Your task to perform on an android device: change your default location settings in chrome Image 0: 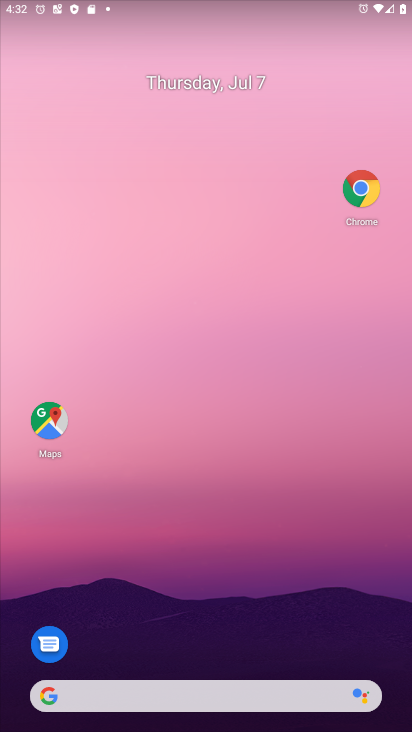
Step 0: drag from (238, 562) to (407, 38)
Your task to perform on an android device: change your default location settings in chrome Image 1: 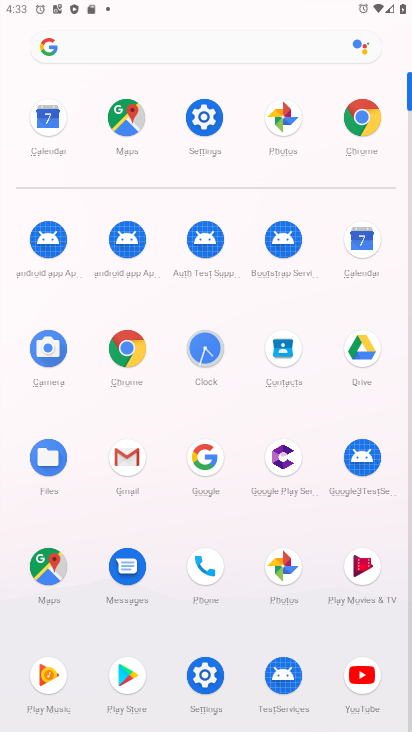
Step 1: click (363, 134)
Your task to perform on an android device: change your default location settings in chrome Image 2: 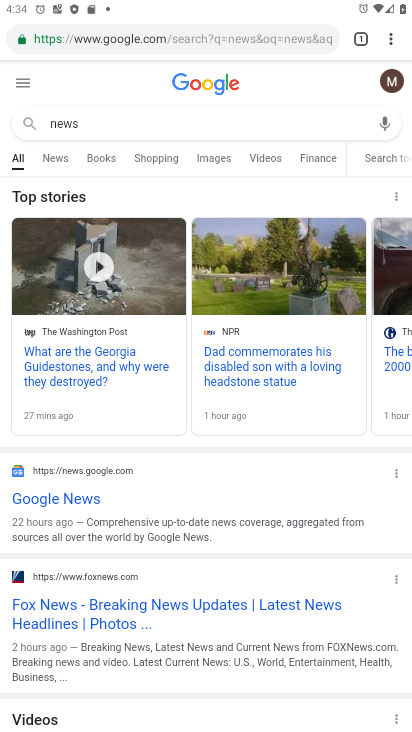
Step 2: press back button
Your task to perform on an android device: change your default location settings in chrome Image 3: 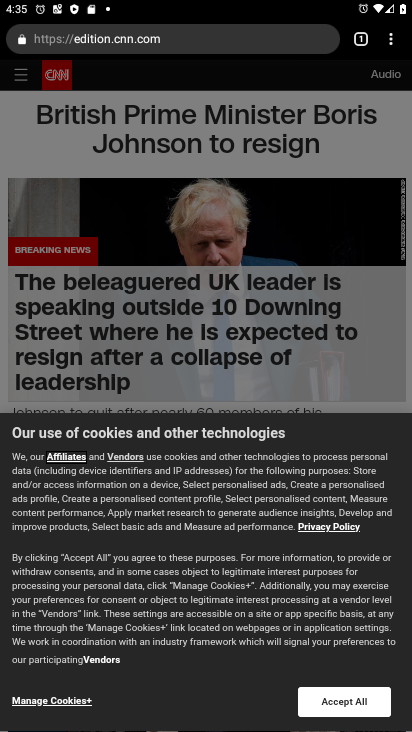
Step 3: press back button
Your task to perform on an android device: change your default location settings in chrome Image 4: 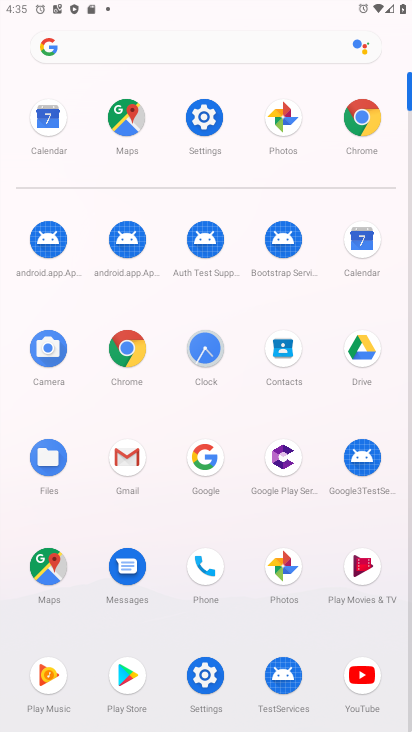
Step 4: click (358, 126)
Your task to perform on an android device: change your default location settings in chrome Image 5: 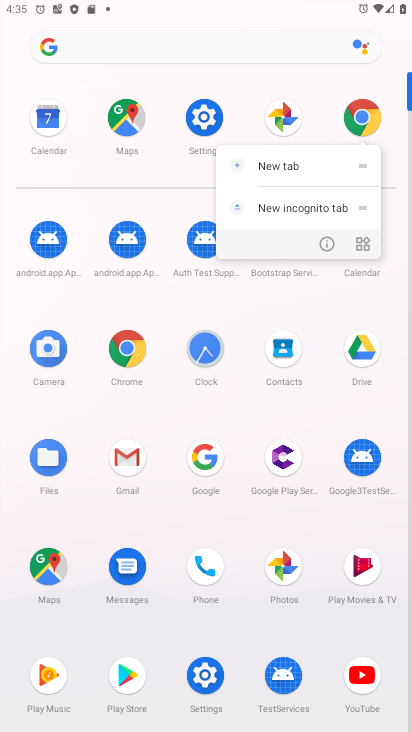
Step 5: click (320, 237)
Your task to perform on an android device: change your default location settings in chrome Image 6: 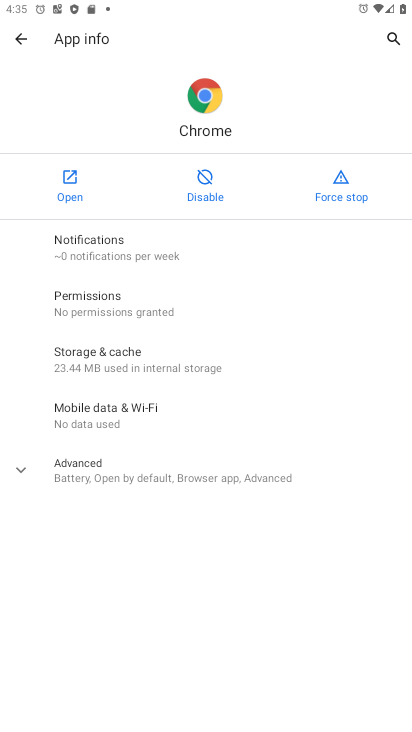
Step 6: click (109, 310)
Your task to perform on an android device: change your default location settings in chrome Image 7: 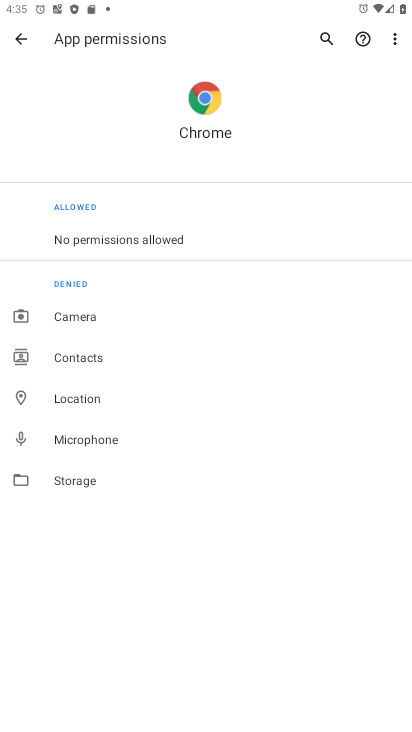
Step 7: click (68, 386)
Your task to perform on an android device: change your default location settings in chrome Image 8: 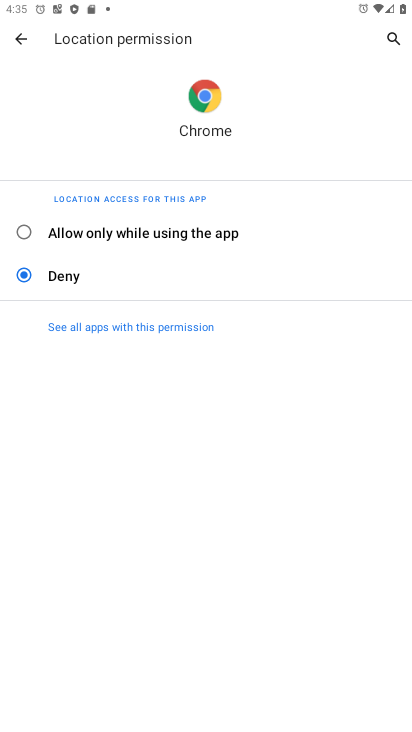
Step 8: task complete